Your task to perform on an android device: check out phone information Image 0: 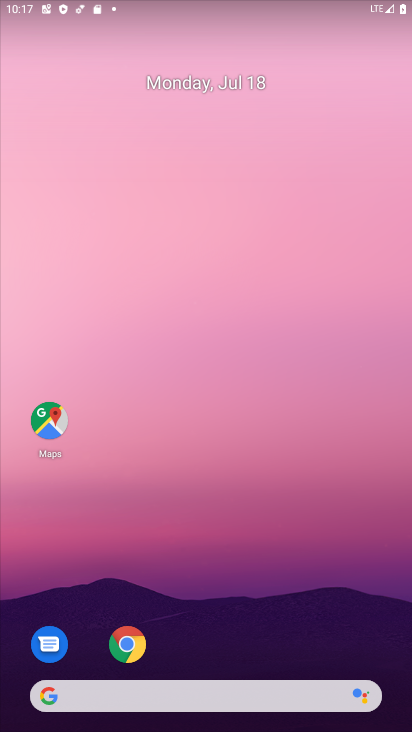
Step 0: drag from (249, 625) to (320, 104)
Your task to perform on an android device: check out phone information Image 1: 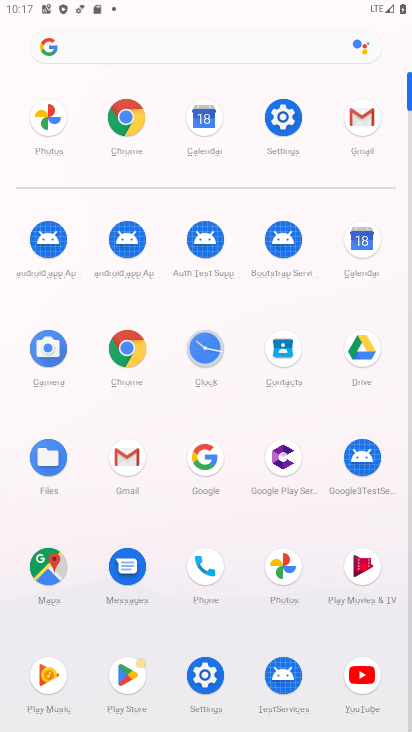
Step 1: click (201, 573)
Your task to perform on an android device: check out phone information Image 2: 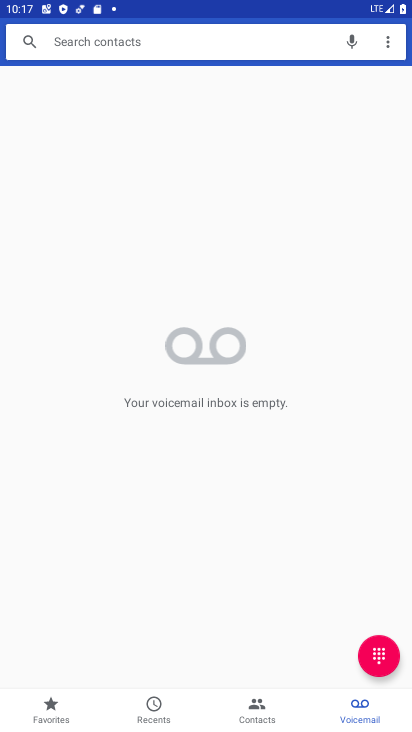
Step 2: task complete